Your task to perform on an android device: Open Chrome and go to the settings page Image 0: 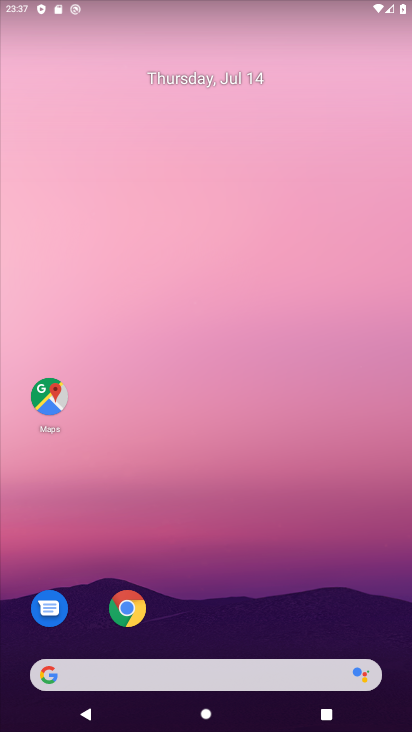
Step 0: drag from (69, 587) to (213, 183)
Your task to perform on an android device: Open Chrome and go to the settings page Image 1: 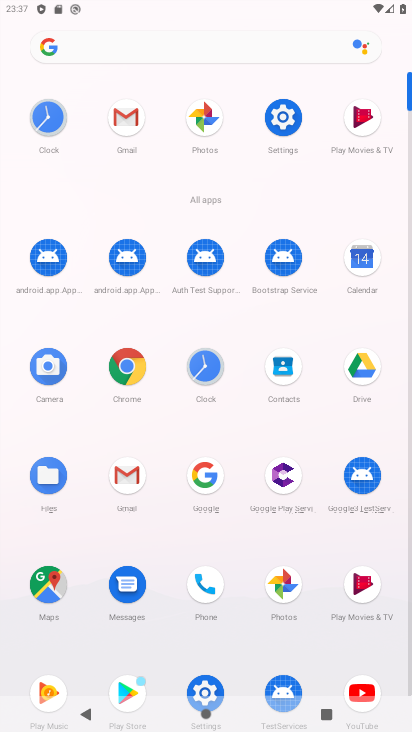
Step 1: click (130, 369)
Your task to perform on an android device: Open Chrome and go to the settings page Image 2: 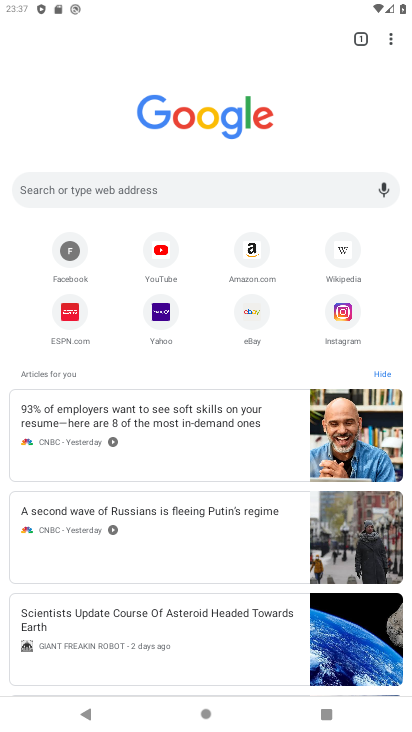
Step 2: click (385, 29)
Your task to perform on an android device: Open Chrome and go to the settings page Image 3: 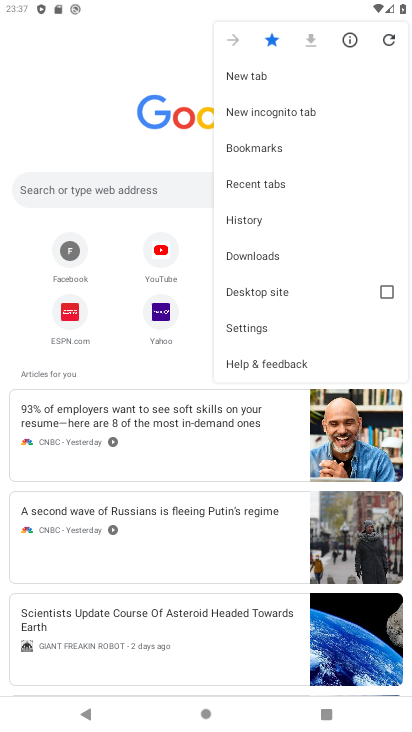
Step 3: click (249, 318)
Your task to perform on an android device: Open Chrome and go to the settings page Image 4: 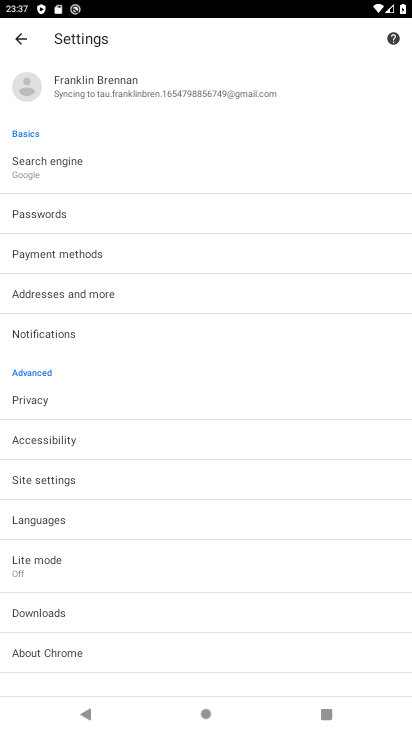
Step 4: task complete